Your task to perform on an android device: Do I have any events tomorrow? Image 0: 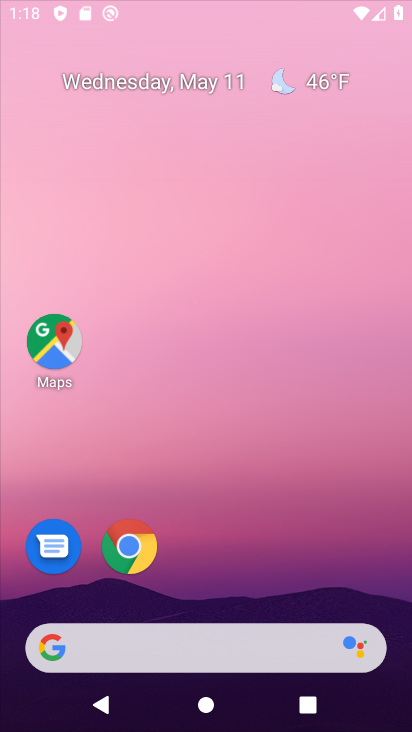
Step 0: click (309, 200)
Your task to perform on an android device: Do I have any events tomorrow? Image 1: 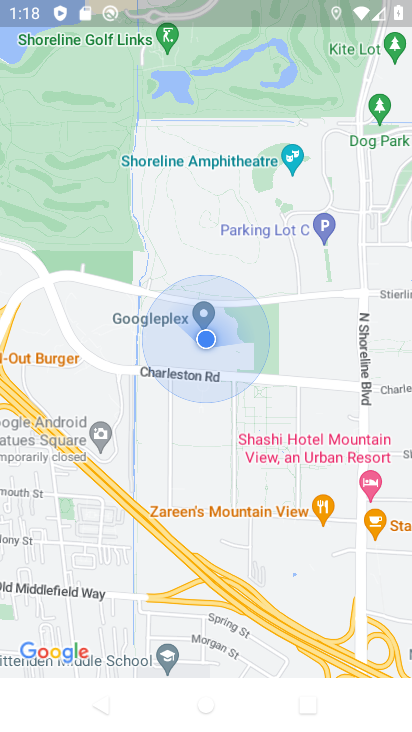
Step 1: drag from (225, 603) to (244, 289)
Your task to perform on an android device: Do I have any events tomorrow? Image 2: 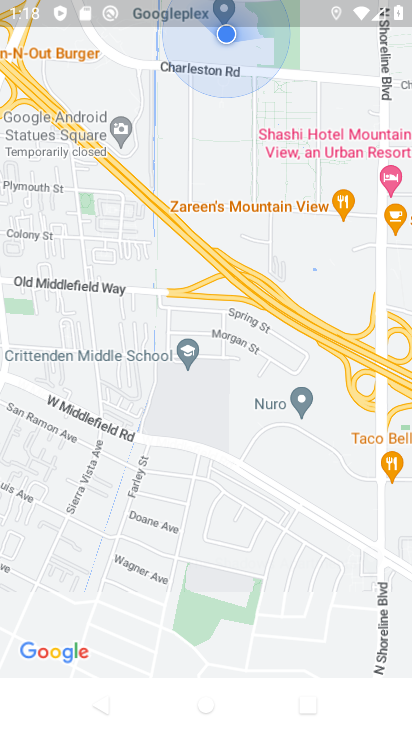
Step 2: press home button
Your task to perform on an android device: Do I have any events tomorrow? Image 3: 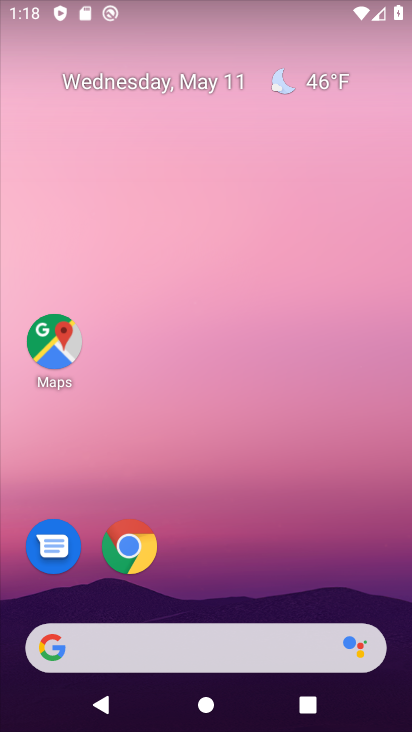
Step 3: drag from (189, 585) to (296, 132)
Your task to perform on an android device: Do I have any events tomorrow? Image 4: 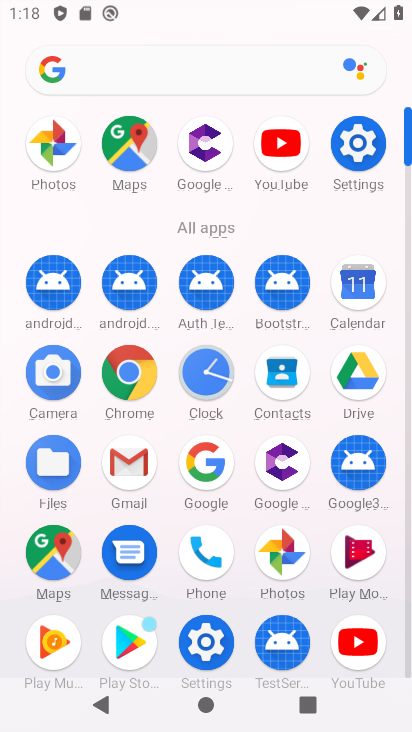
Step 4: click (354, 271)
Your task to perform on an android device: Do I have any events tomorrow? Image 5: 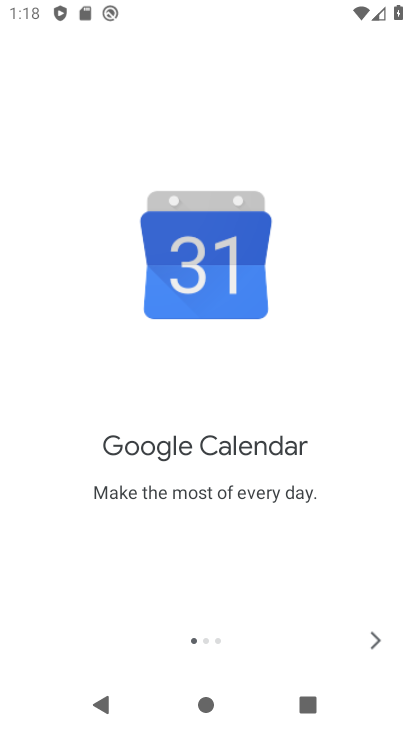
Step 5: click (375, 647)
Your task to perform on an android device: Do I have any events tomorrow? Image 6: 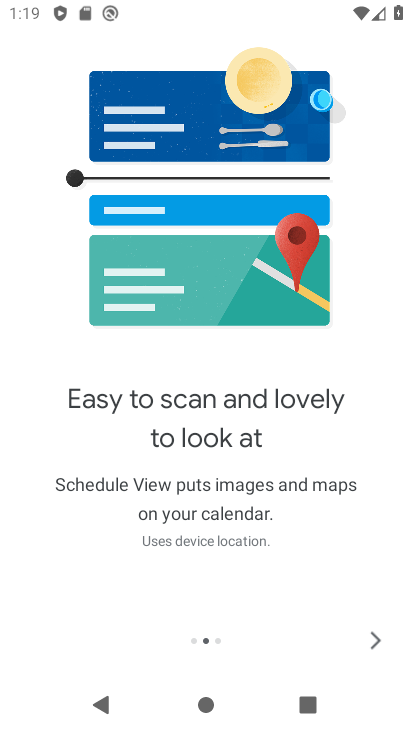
Step 6: click (368, 636)
Your task to perform on an android device: Do I have any events tomorrow? Image 7: 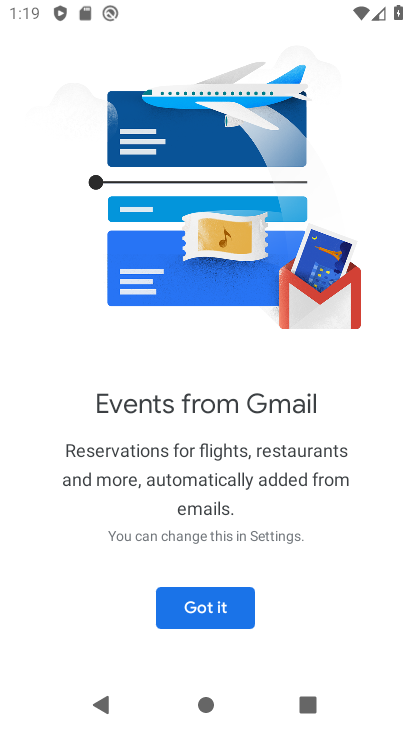
Step 7: click (185, 604)
Your task to perform on an android device: Do I have any events tomorrow? Image 8: 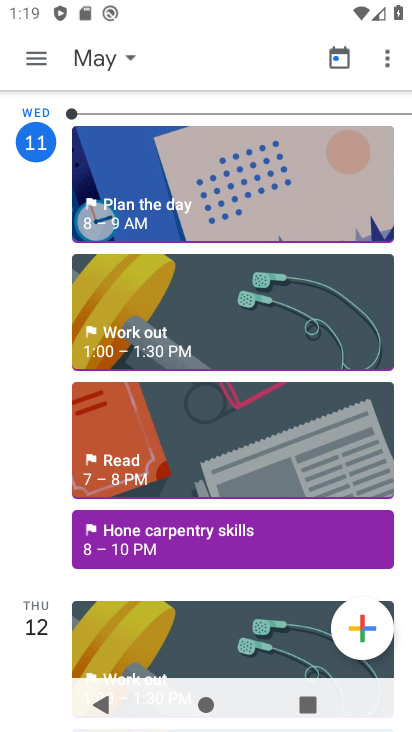
Step 8: task complete